Your task to perform on an android device: find snoozed emails in the gmail app Image 0: 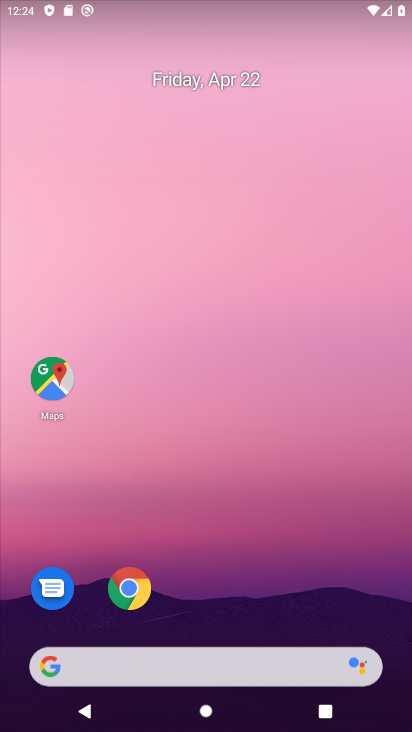
Step 0: drag from (270, 664) to (313, 157)
Your task to perform on an android device: find snoozed emails in the gmail app Image 1: 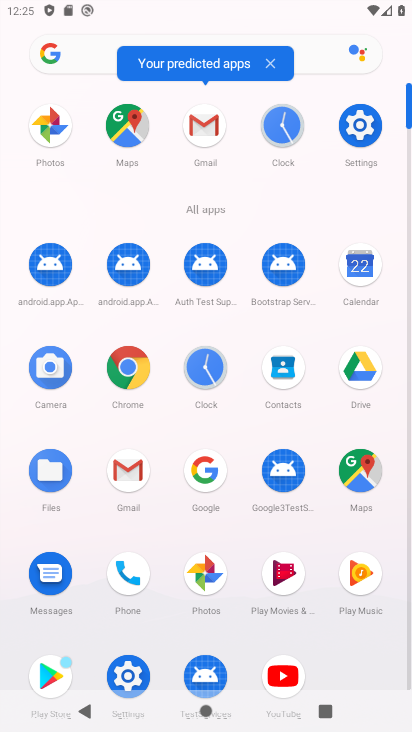
Step 1: click (129, 474)
Your task to perform on an android device: find snoozed emails in the gmail app Image 2: 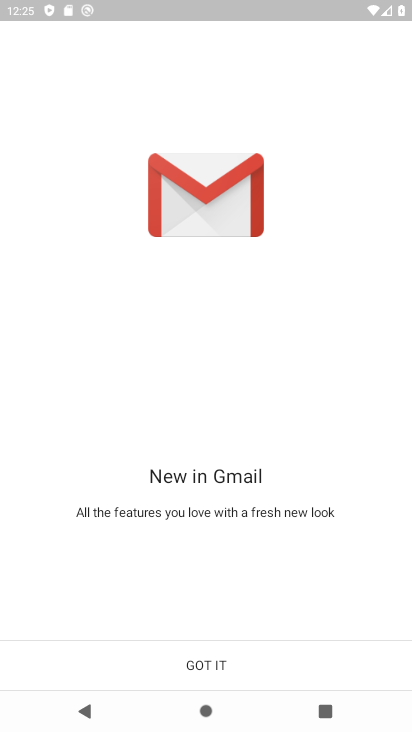
Step 2: click (225, 663)
Your task to perform on an android device: find snoozed emails in the gmail app Image 3: 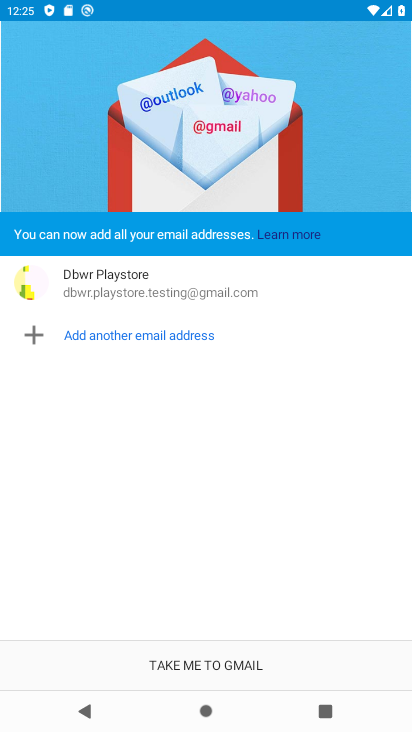
Step 3: click (302, 652)
Your task to perform on an android device: find snoozed emails in the gmail app Image 4: 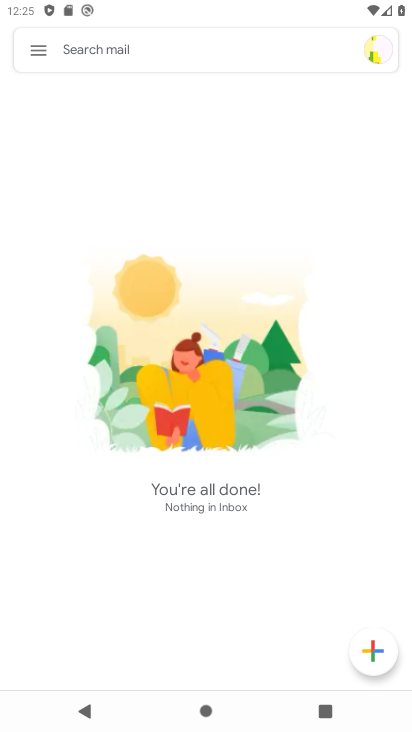
Step 4: click (35, 50)
Your task to perform on an android device: find snoozed emails in the gmail app Image 5: 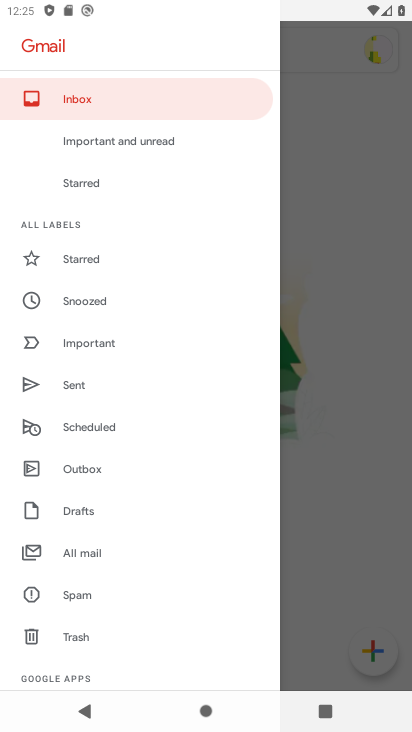
Step 5: drag from (114, 642) to (167, 374)
Your task to perform on an android device: find snoozed emails in the gmail app Image 6: 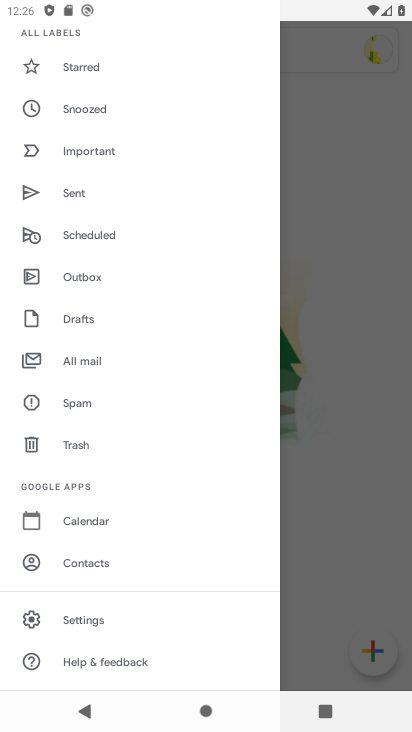
Step 6: drag from (132, 604) to (141, 350)
Your task to perform on an android device: find snoozed emails in the gmail app Image 7: 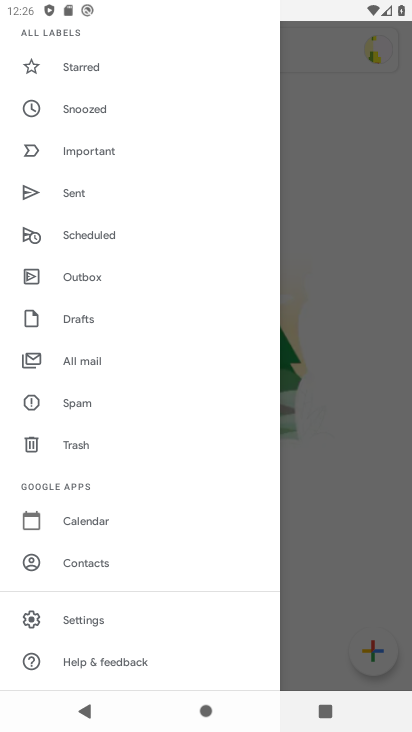
Step 7: drag from (122, 146) to (109, 107)
Your task to perform on an android device: find snoozed emails in the gmail app Image 8: 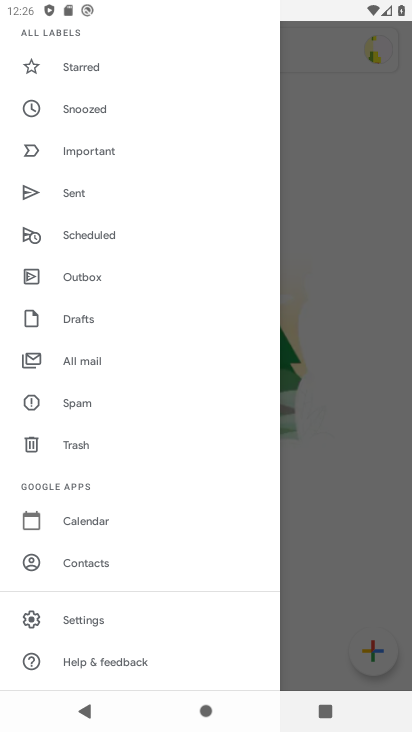
Step 8: click (103, 109)
Your task to perform on an android device: find snoozed emails in the gmail app Image 9: 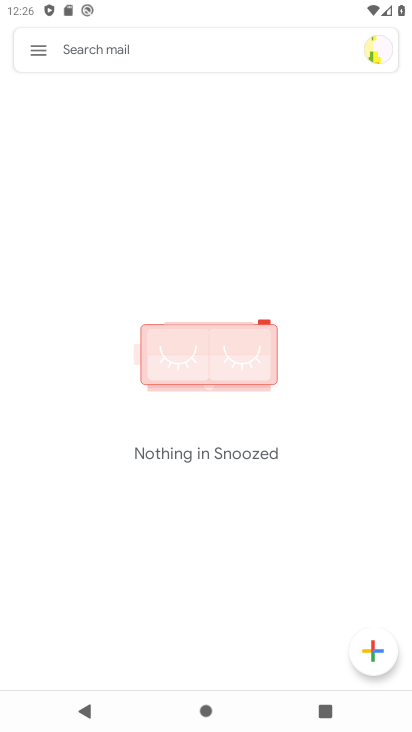
Step 9: task complete